Your task to perform on an android device: Open Chrome and go to settings Image 0: 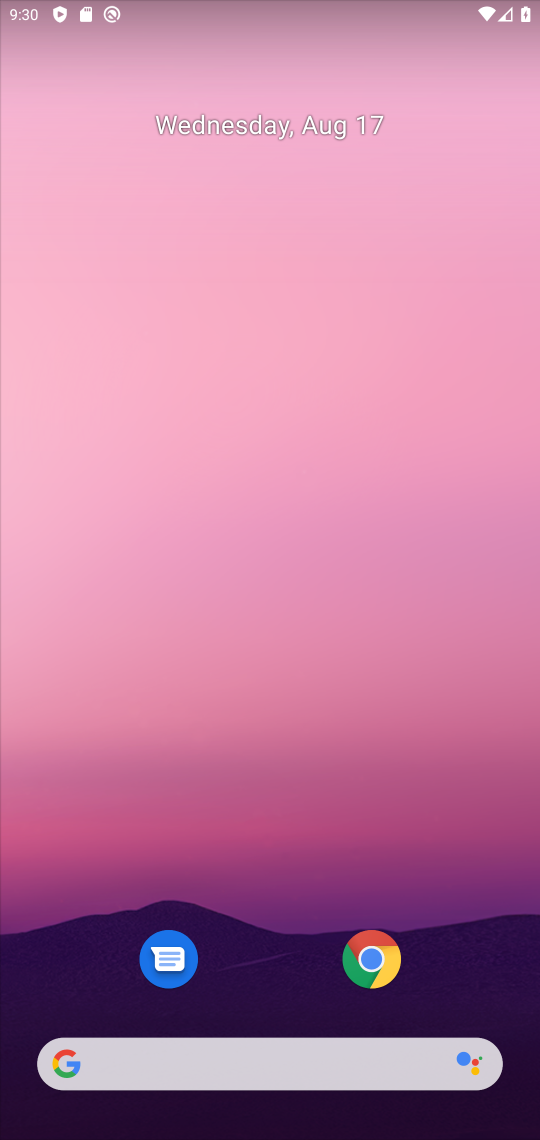
Step 0: drag from (242, 732) to (268, 106)
Your task to perform on an android device: Open Chrome and go to settings Image 1: 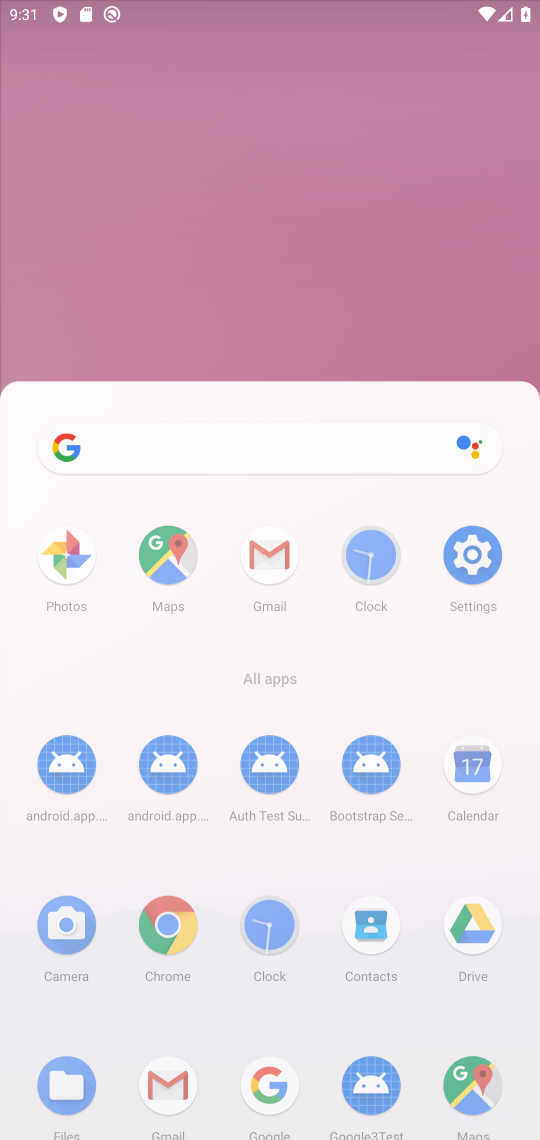
Step 1: task complete